Your task to perform on an android device: add a label to a message in the gmail app Image 0: 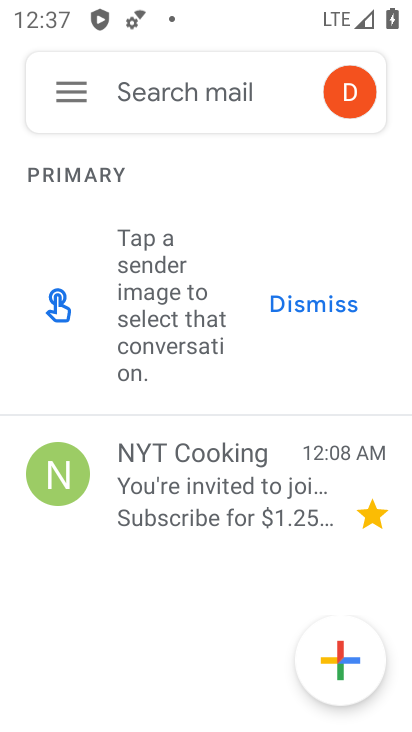
Step 0: task complete